Your task to perform on an android device: Turn on the flashlight Image 0: 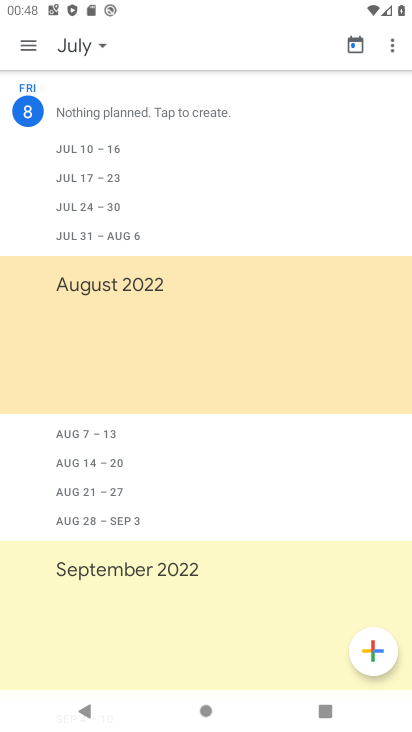
Step 0: drag from (111, 596) to (150, 206)
Your task to perform on an android device: Turn on the flashlight Image 1: 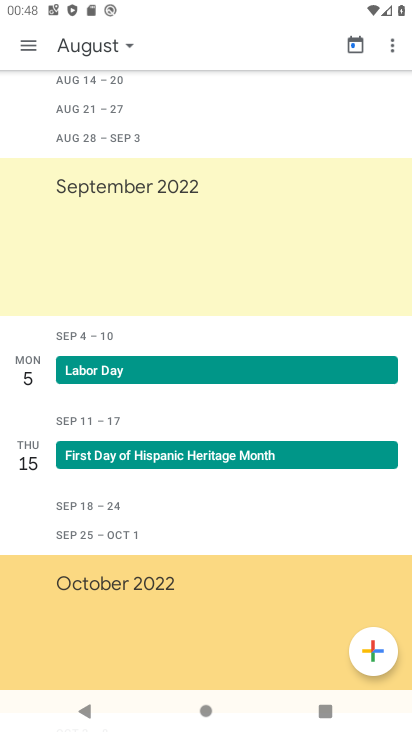
Step 1: drag from (202, 190) to (405, 519)
Your task to perform on an android device: Turn on the flashlight Image 2: 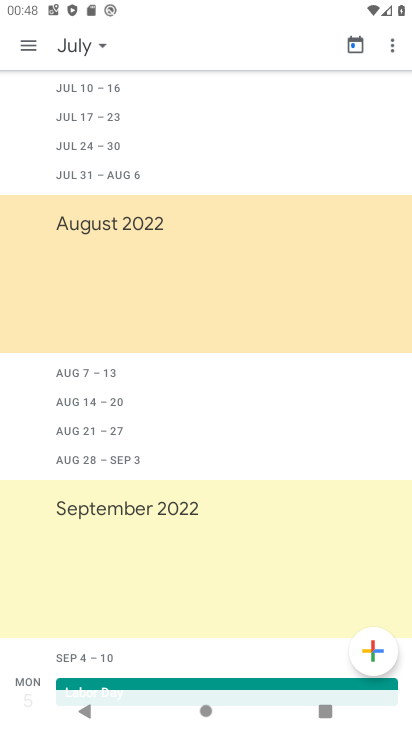
Step 2: press home button
Your task to perform on an android device: Turn on the flashlight Image 3: 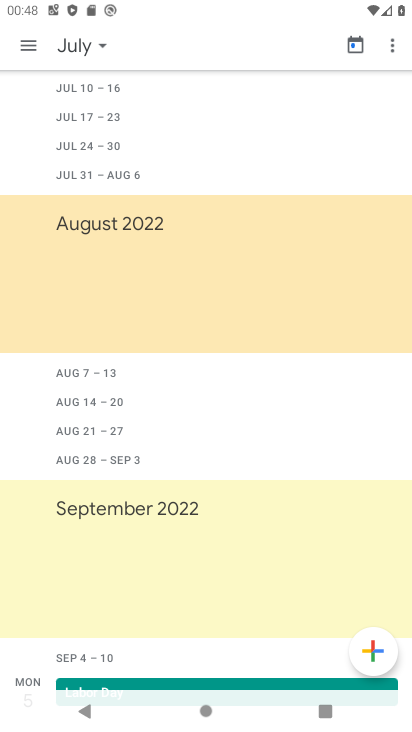
Step 3: click (368, 286)
Your task to perform on an android device: Turn on the flashlight Image 4: 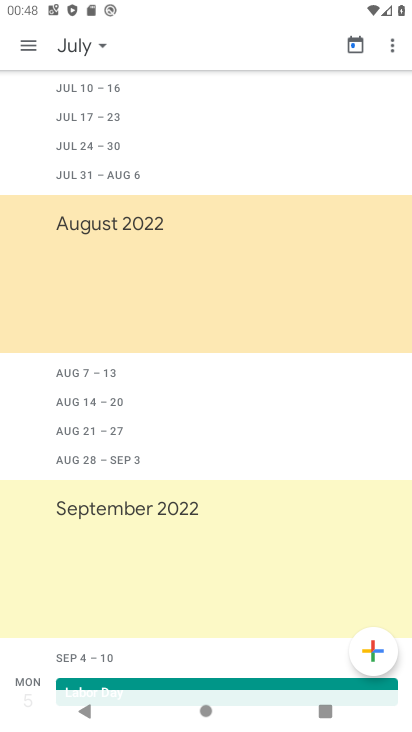
Step 4: drag from (135, 437) to (188, 8)
Your task to perform on an android device: Turn on the flashlight Image 5: 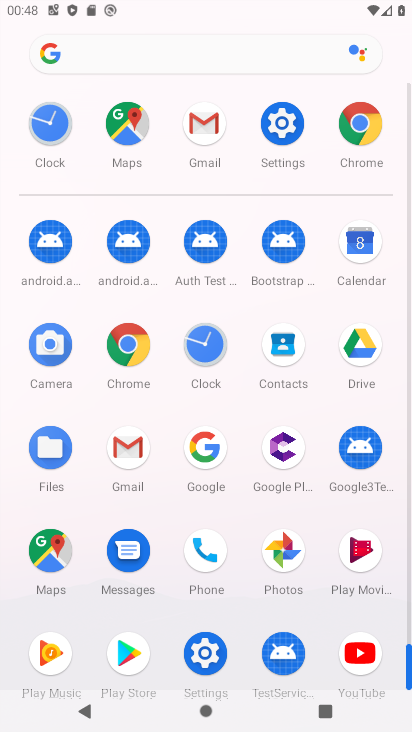
Step 5: click (278, 116)
Your task to perform on an android device: Turn on the flashlight Image 6: 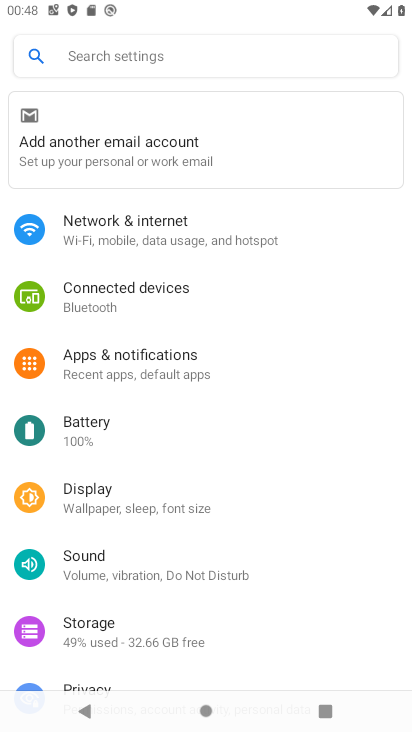
Step 6: click (181, 47)
Your task to perform on an android device: Turn on the flashlight Image 7: 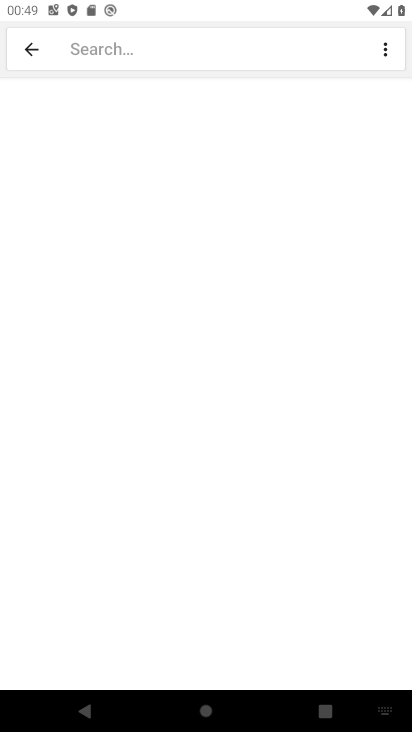
Step 7: drag from (267, 617) to (275, 195)
Your task to perform on an android device: Turn on the flashlight Image 8: 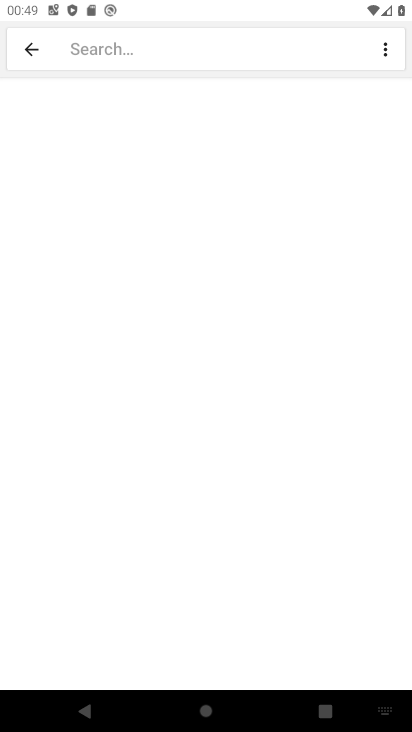
Step 8: type "flashlight"
Your task to perform on an android device: Turn on the flashlight Image 9: 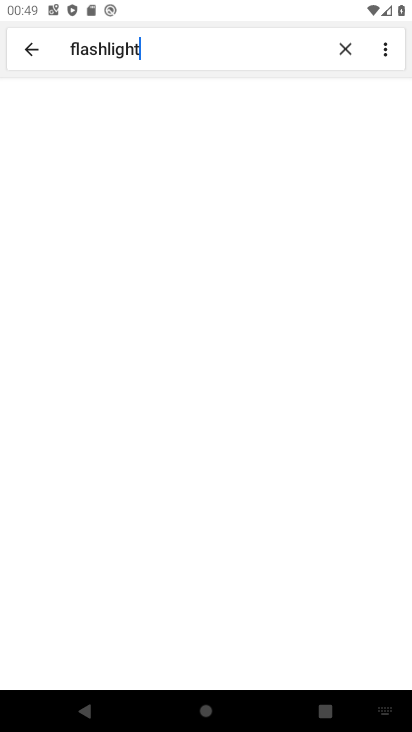
Step 9: type ""
Your task to perform on an android device: Turn on the flashlight Image 10: 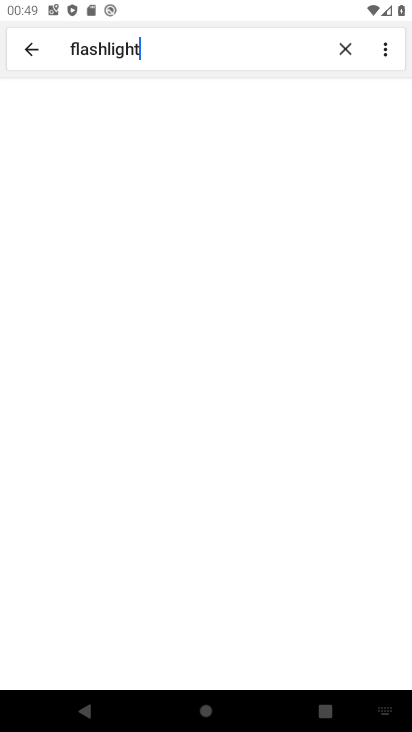
Step 10: drag from (210, 233) to (213, 189)
Your task to perform on an android device: Turn on the flashlight Image 11: 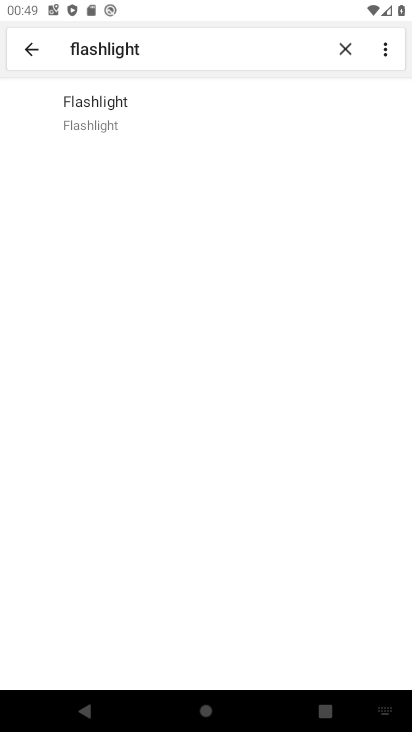
Step 11: drag from (212, 470) to (250, 169)
Your task to perform on an android device: Turn on the flashlight Image 12: 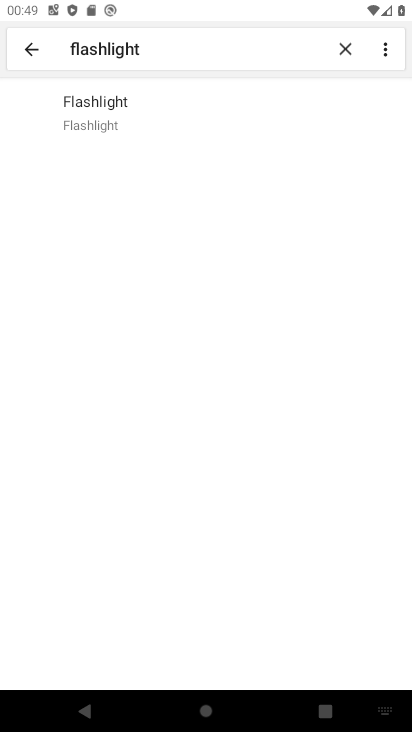
Step 12: click (164, 110)
Your task to perform on an android device: Turn on the flashlight Image 13: 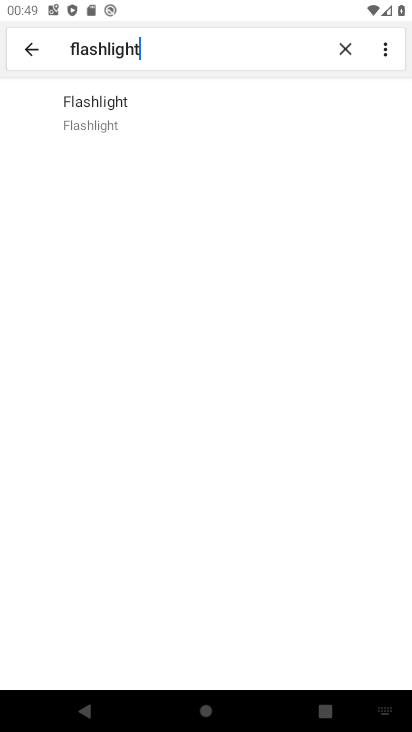
Step 13: click (152, 134)
Your task to perform on an android device: Turn on the flashlight Image 14: 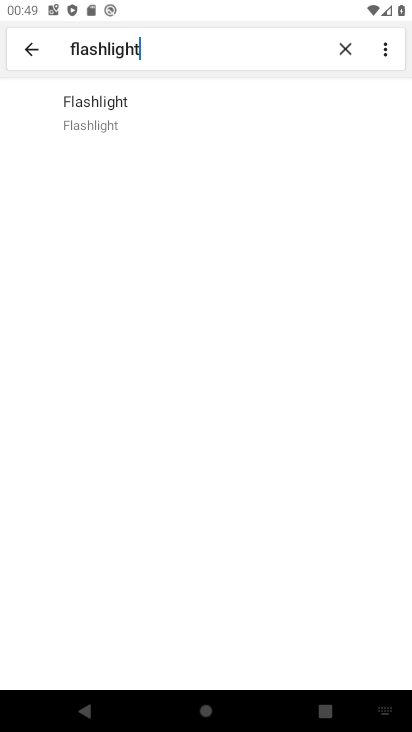
Step 14: click (129, 100)
Your task to perform on an android device: Turn on the flashlight Image 15: 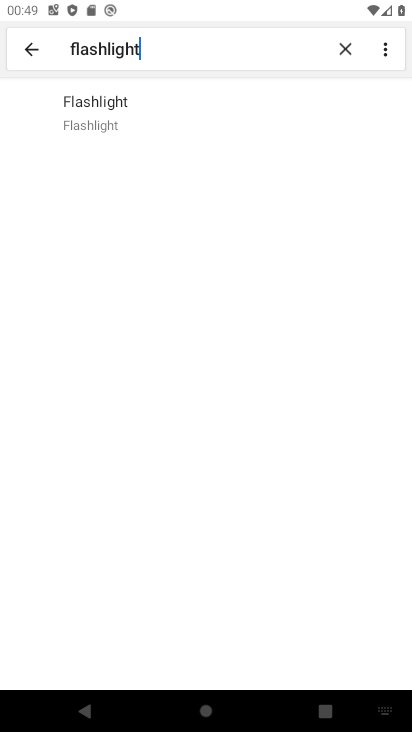
Step 15: drag from (158, 439) to (195, 274)
Your task to perform on an android device: Turn on the flashlight Image 16: 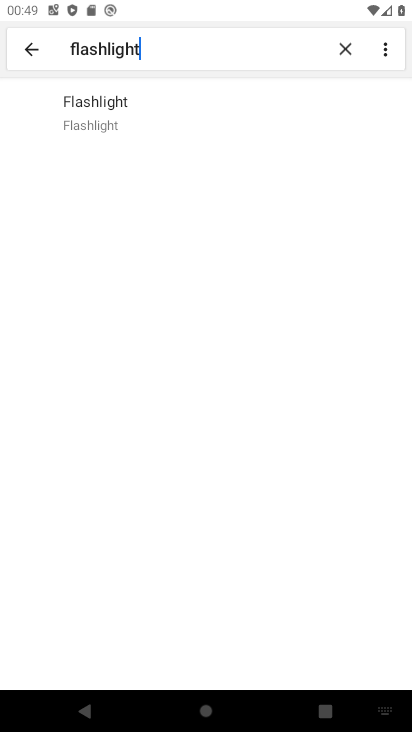
Step 16: click (164, 119)
Your task to perform on an android device: Turn on the flashlight Image 17: 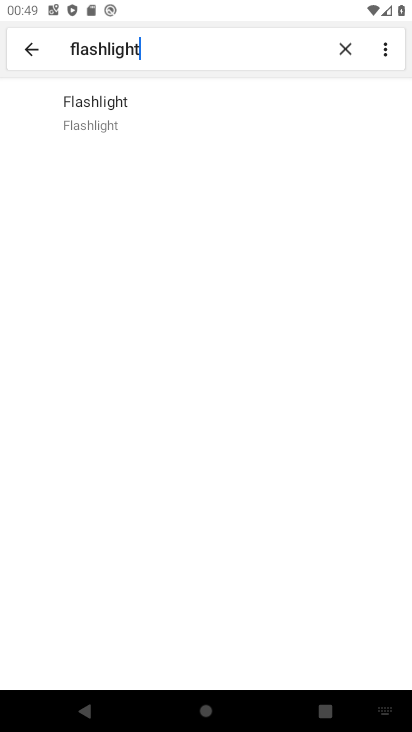
Step 17: task complete